Your task to perform on an android device: remove spam from my inbox in the gmail app Image 0: 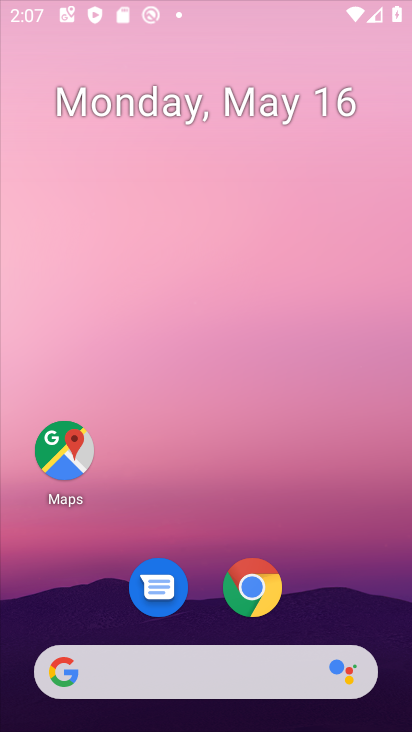
Step 0: drag from (332, 641) to (138, 93)
Your task to perform on an android device: remove spam from my inbox in the gmail app Image 1: 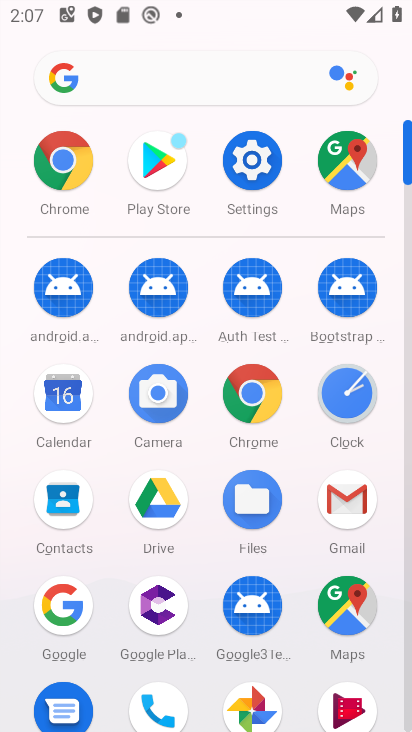
Step 1: click (341, 493)
Your task to perform on an android device: remove spam from my inbox in the gmail app Image 2: 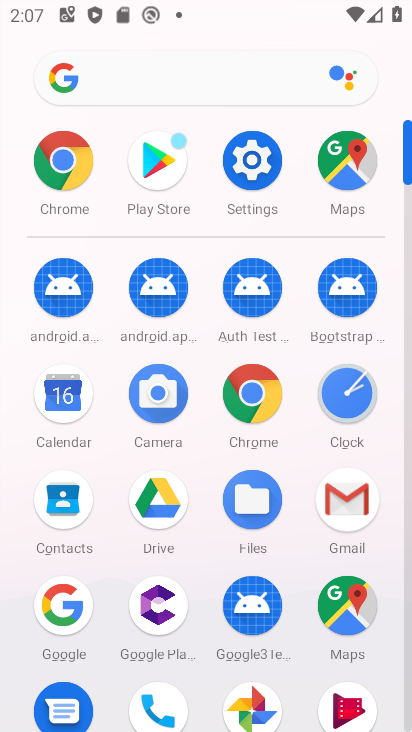
Step 2: click (341, 493)
Your task to perform on an android device: remove spam from my inbox in the gmail app Image 3: 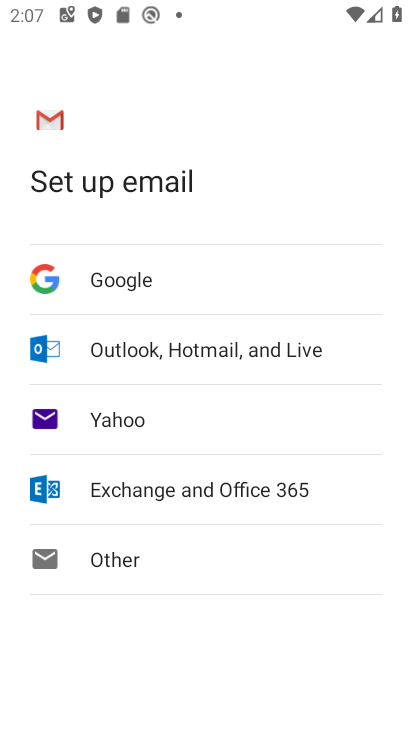
Step 3: press back button
Your task to perform on an android device: remove spam from my inbox in the gmail app Image 4: 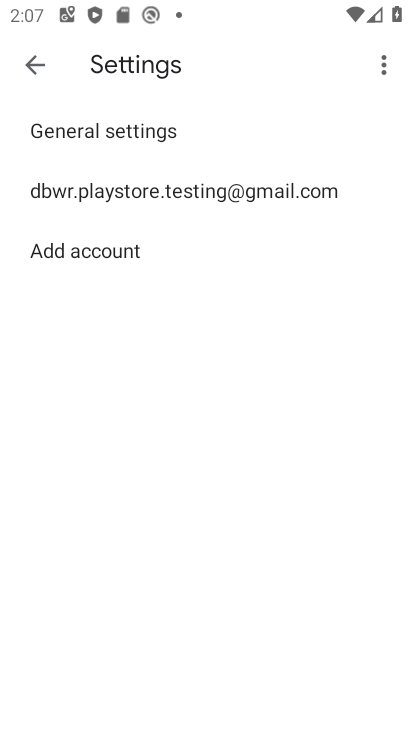
Step 4: click (37, 61)
Your task to perform on an android device: remove spam from my inbox in the gmail app Image 5: 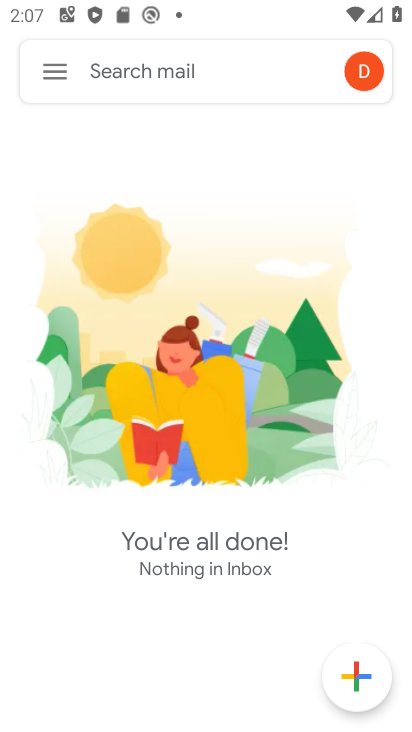
Step 5: click (59, 73)
Your task to perform on an android device: remove spam from my inbox in the gmail app Image 6: 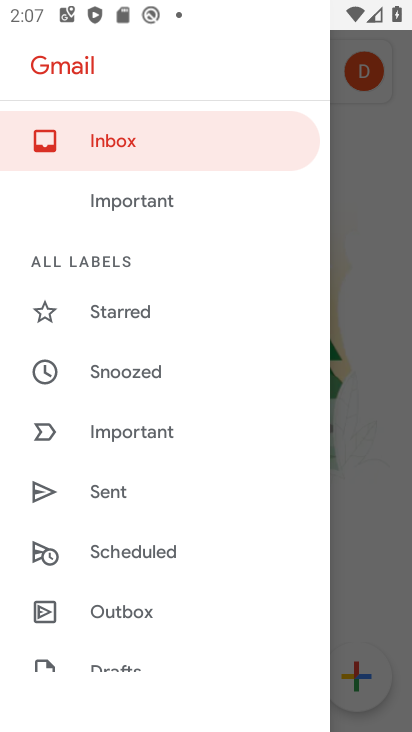
Step 6: drag from (189, 524) to (180, 219)
Your task to perform on an android device: remove spam from my inbox in the gmail app Image 7: 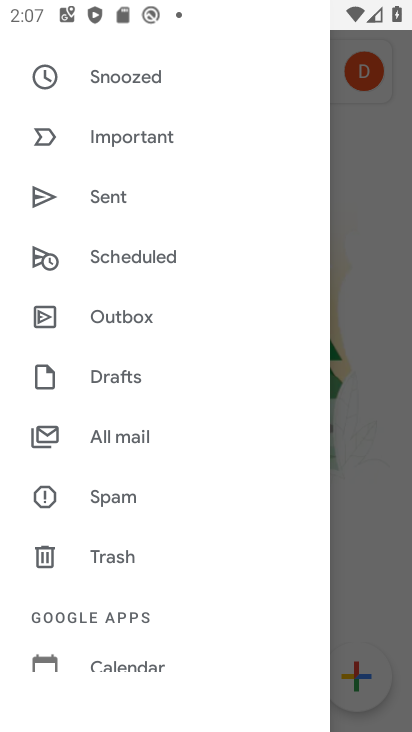
Step 7: click (108, 494)
Your task to perform on an android device: remove spam from my inbox in the gmail app Image 8: 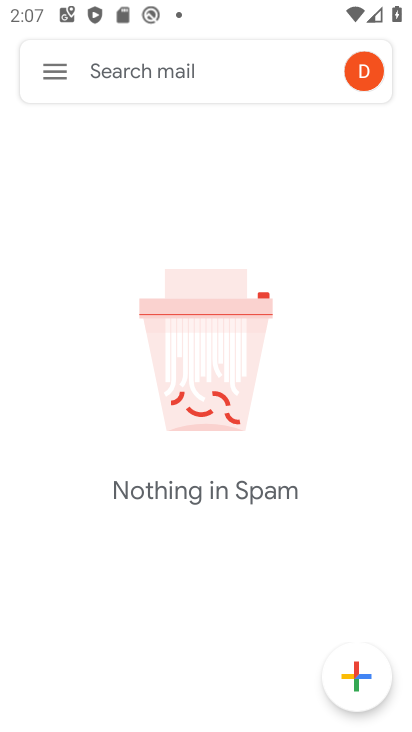
Step 8: task complete